Your task to perform on an android device: turn off translation in the chrome app Image 0: 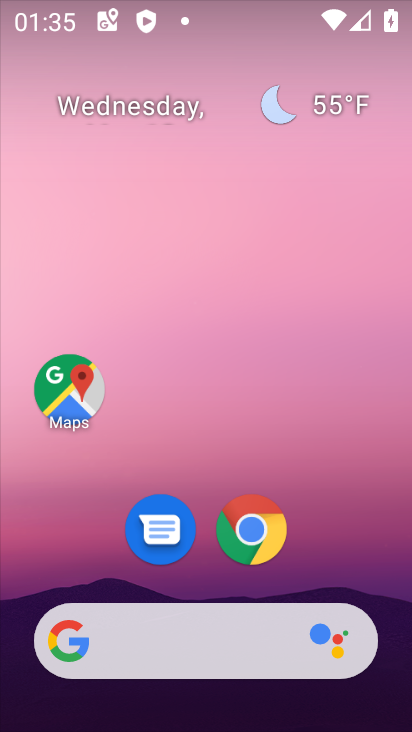
Step 0: click (249, 523)
Your task to perform on an android device: turn off translation in the chrome app Image 1: 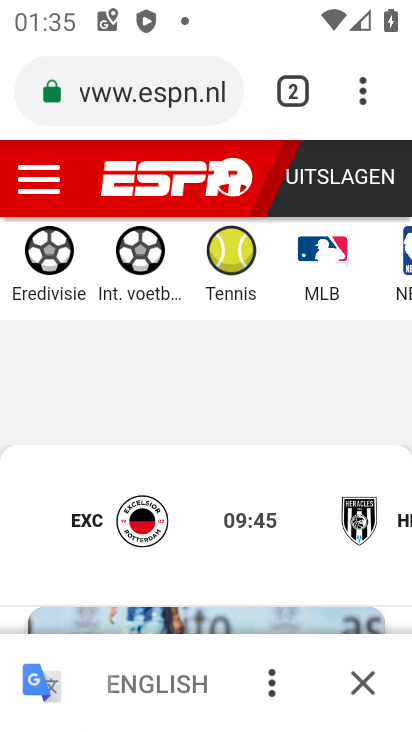
Step 1: click (361, 101)
Your task to perform on an android device: turn off translation in the chrome app Image 2: 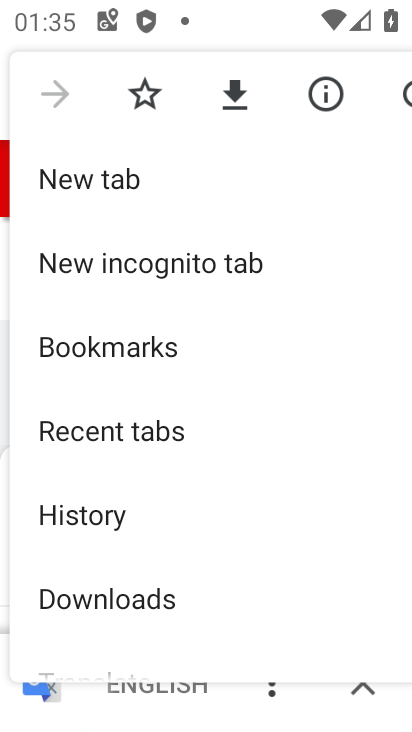
Step 2: drag from (217, 599) to (212, 262)
Your task to perform on an android device: turn off translation in the chrome app Image 3: 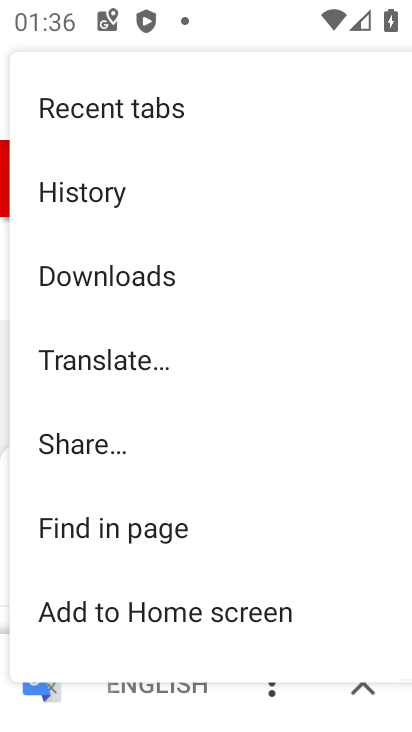
Step 3: drag from (178, 605) to (194, 311)
Your task to perform on an android device: turn off translation in the chrome app Image 4: 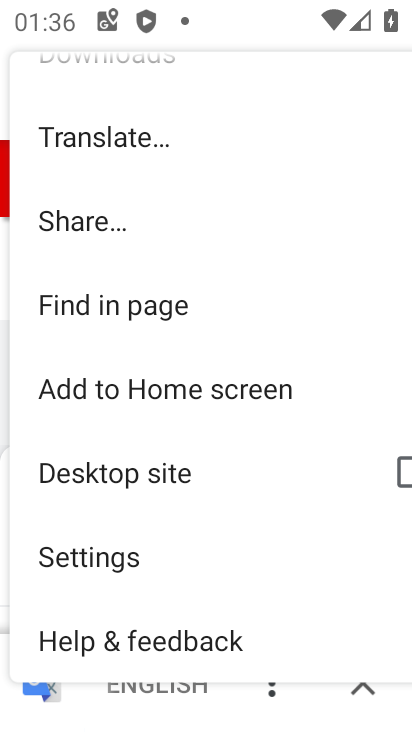
Step 4: click (106, 558)
Your task to perform on an android device: turn off translation in the chrome app Image 5: 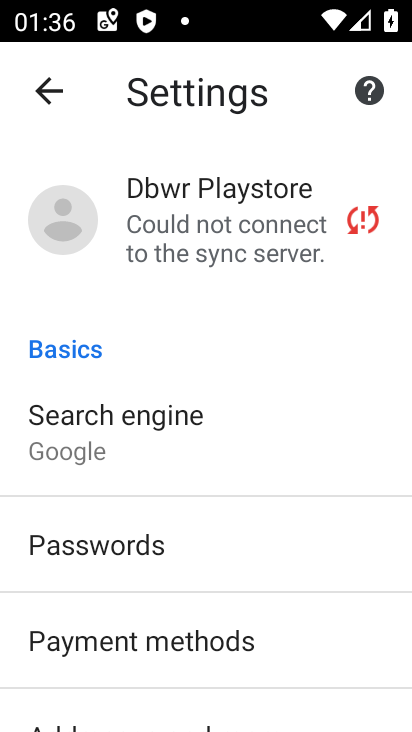
Step 5: drag from (164, 656) to (204, 281)
Your task to perform on an android device: turn off translation in the chrome app Image 6: 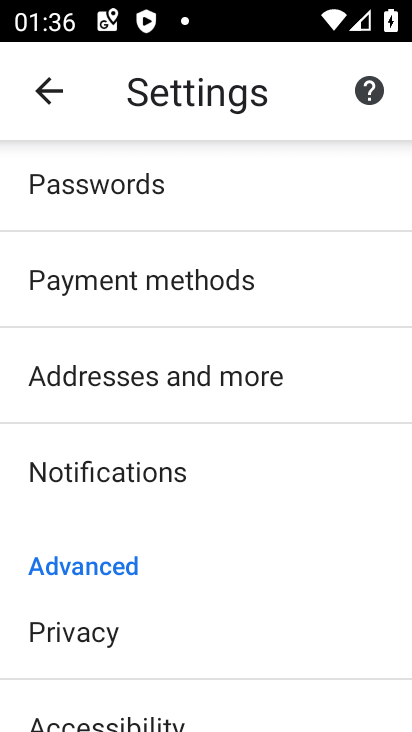
Step 6: drag from (193, 661) to (231, 293)
Your task to perform on an android device: turn off translation in the chrome app Image 7: 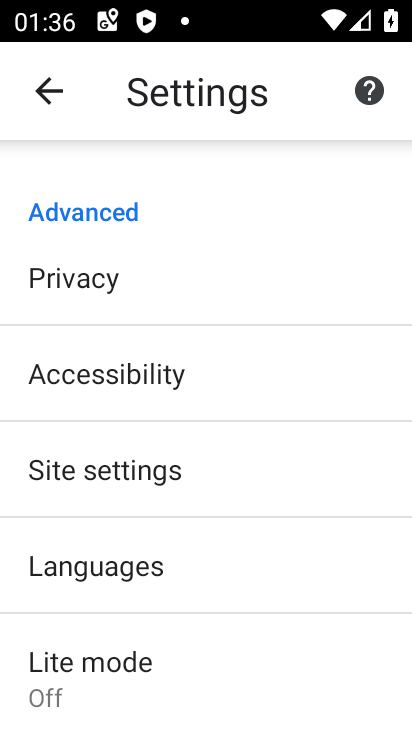
Step 7: drag from (198, 681) to (208, 511)
Your task to perform on an android device: turn off translation in the chrome app Image 8: 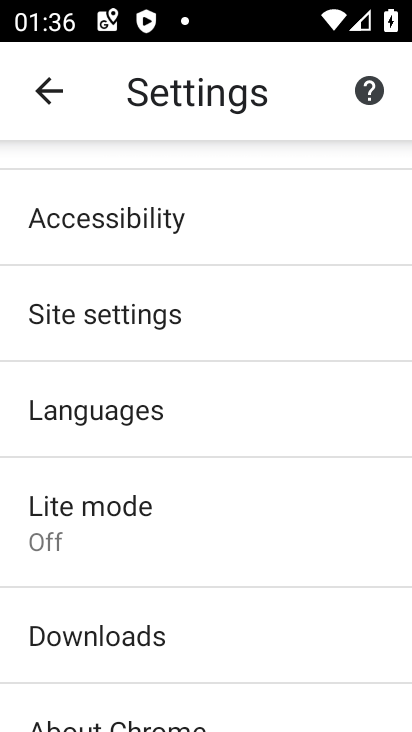
Step 8: click (126, 406)
Your task to perform on an android device: turn off translation in the chrome app Image 9: 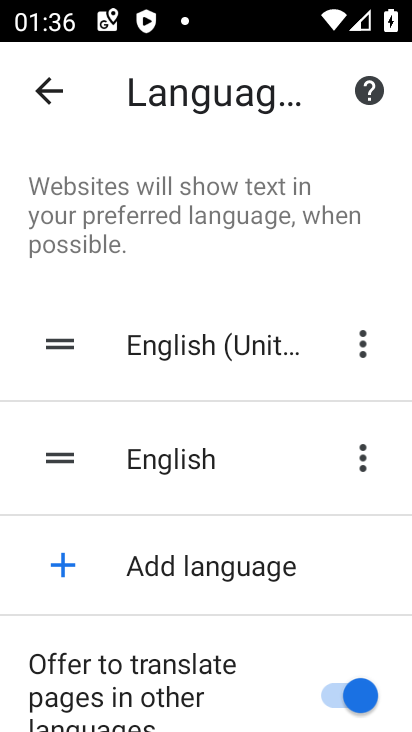
Step 9: click (330, 697)
Your task to perform on an android device: turn off translation in the chrome app Image 10: 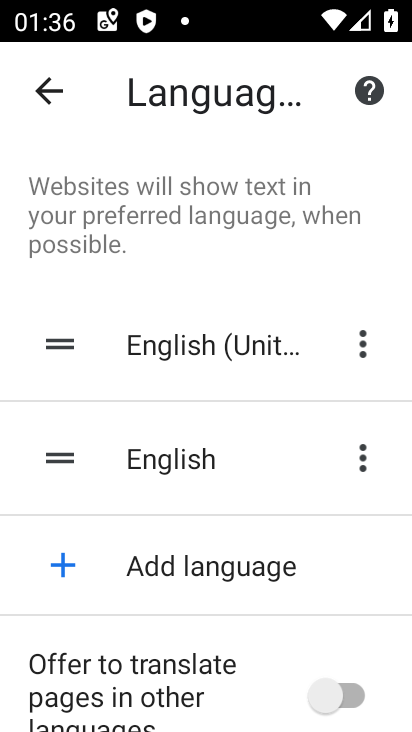
Step 10: task complete